Your task to perform on an android device: Do I have any events this weekend? Image 0: 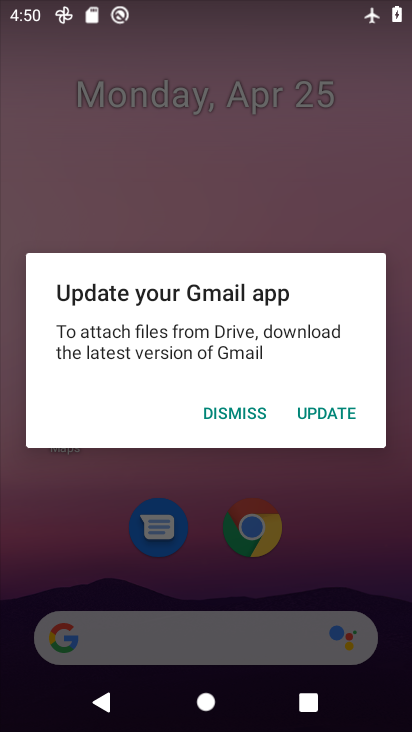
Step 0: press home button
Your task to perform on an android device: Do I have any events this weekend? Image 1: 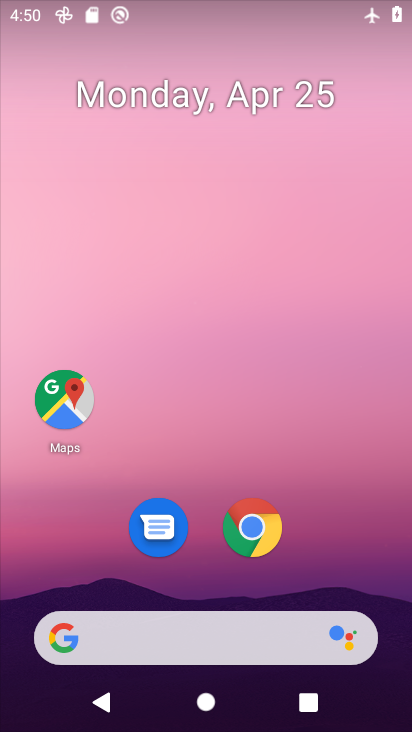
Step 1: drag from (380, 611) to (313, 132)
Your task to perform on an android device: Do I have any events this weekend? Image 2: 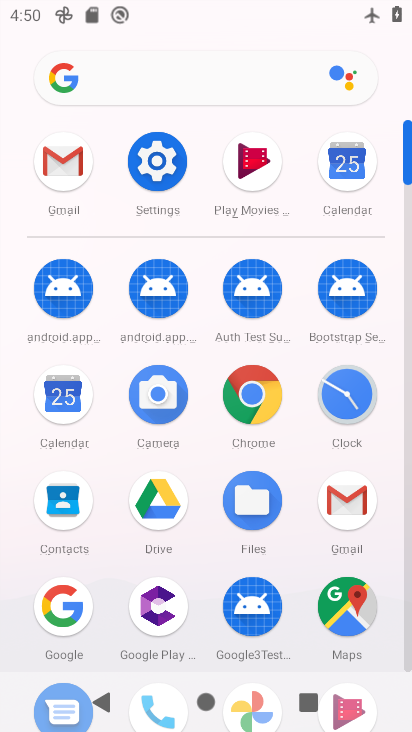
Step 2: click (408, 652)
Your task to perform on an android device: Do I have any events this weekend? Image 3: 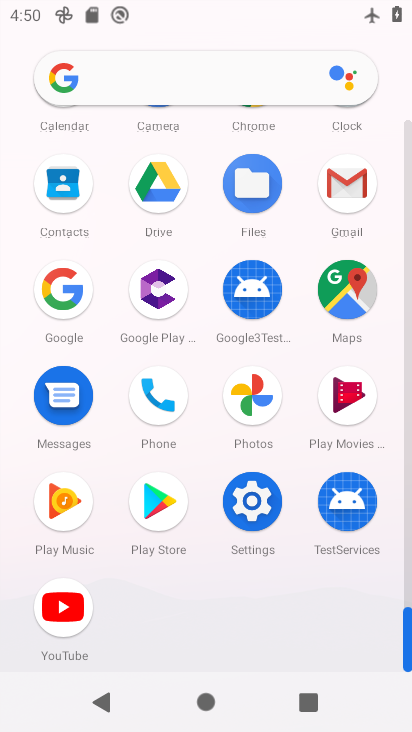
Step 3: click (410, 162)
Your task to perform on an android device: Do I have any events this weekend? Image 4: 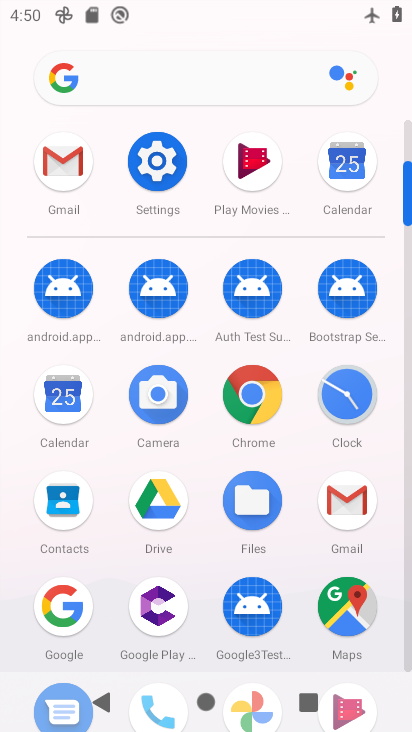
Step 4: click (51, 400)
Your task to perform on an android device: Do I have any events this weekend? Image 5: 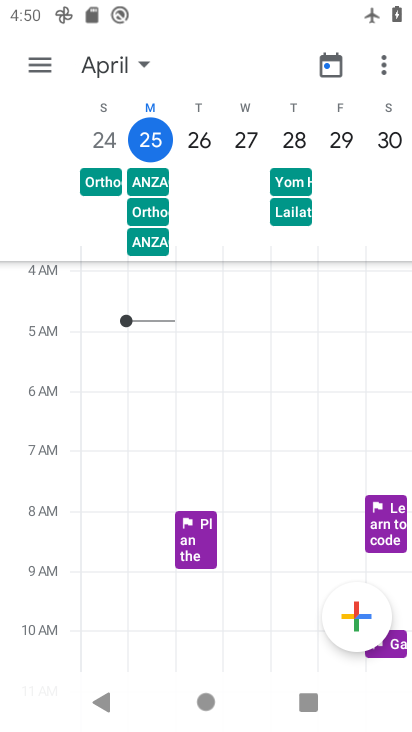
Step 5: task complete